Your task to perform on an android device: turn off location history Image 0: 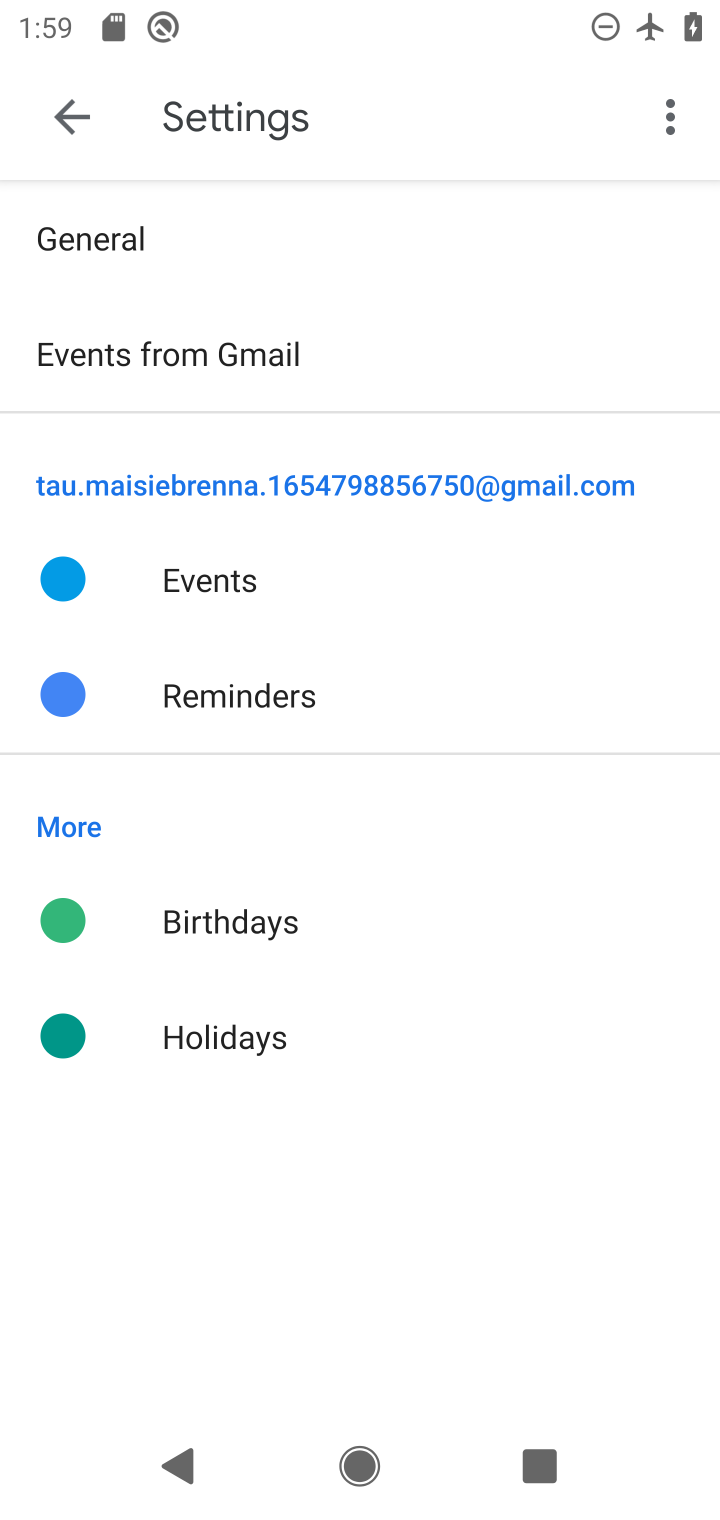
Step 0: click (68, 109)
Your task to perform on an android device: turn off location history Image 1: 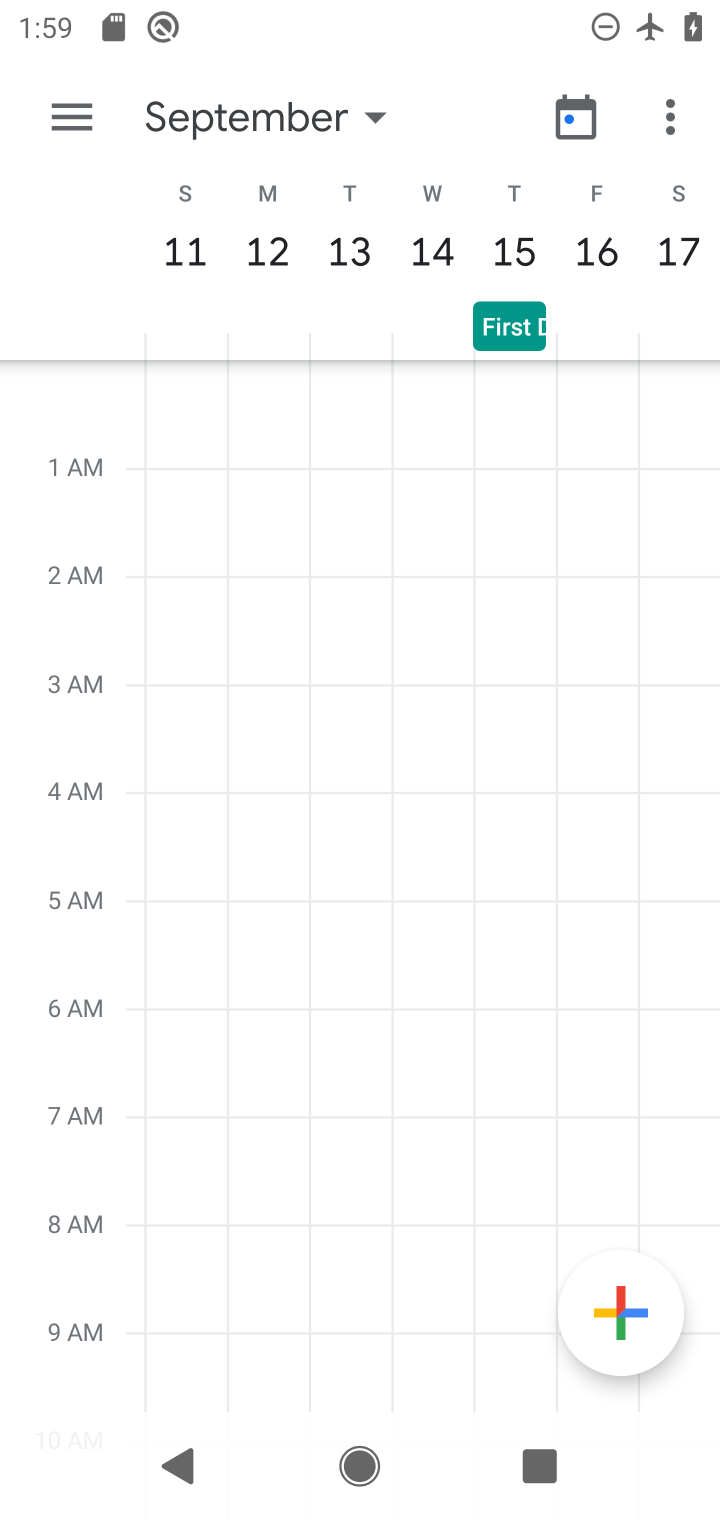
Step 1: press home button
Your task to perform on an android device: turn off location history Image 2: 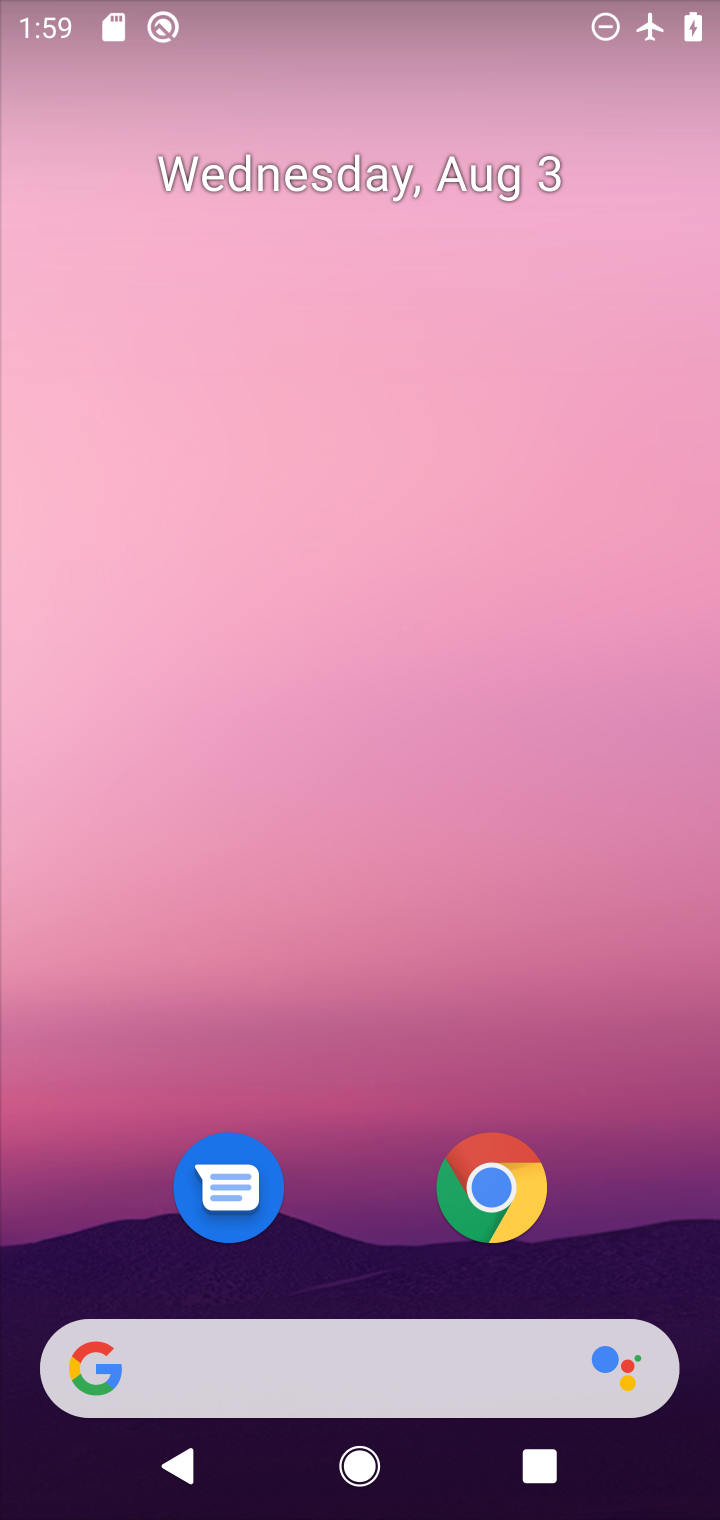
Step 2: drag from (403, 1084) to (450, 2)
Your task to perform on an android device: turn off location history Image 3: 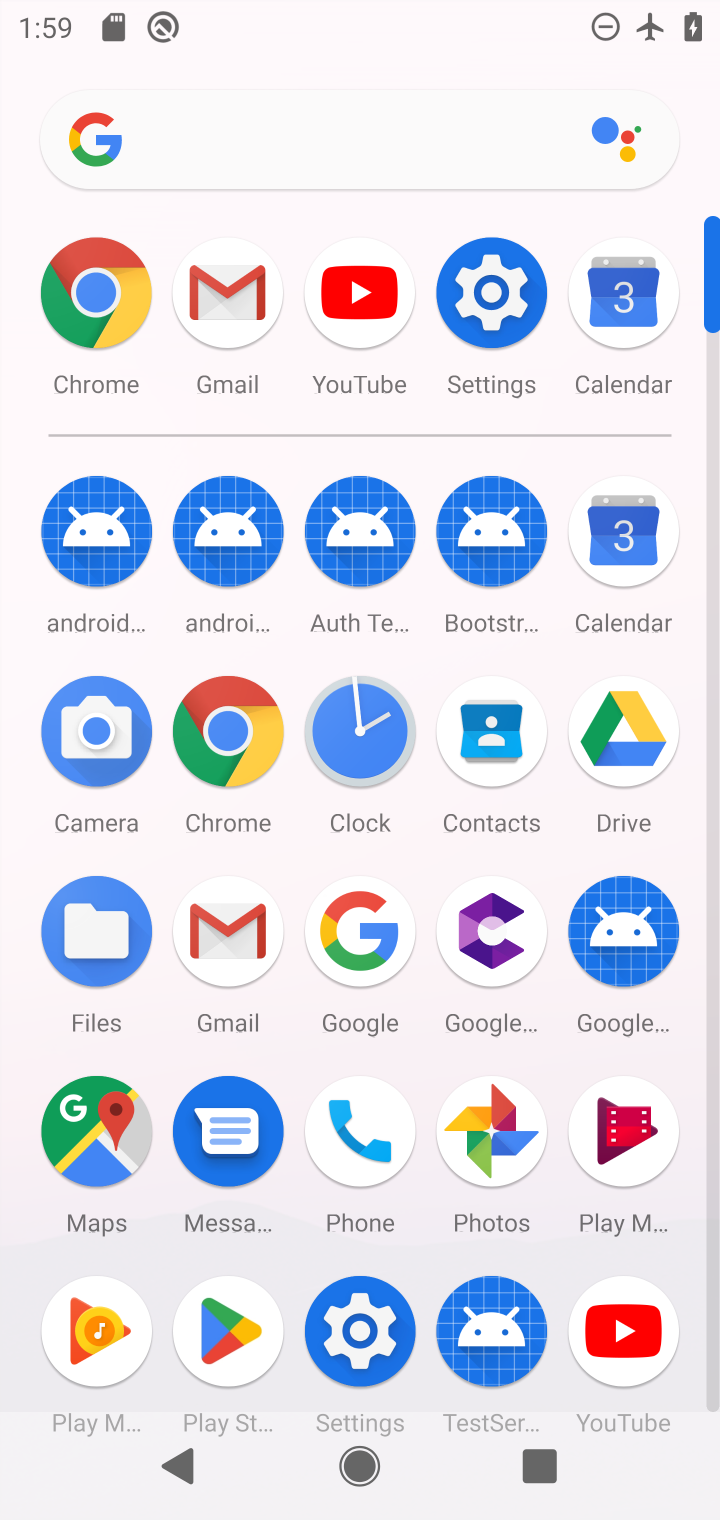
Step 3: click (490, 293)
Your task to perform on an android device: turn off location history Image 4: 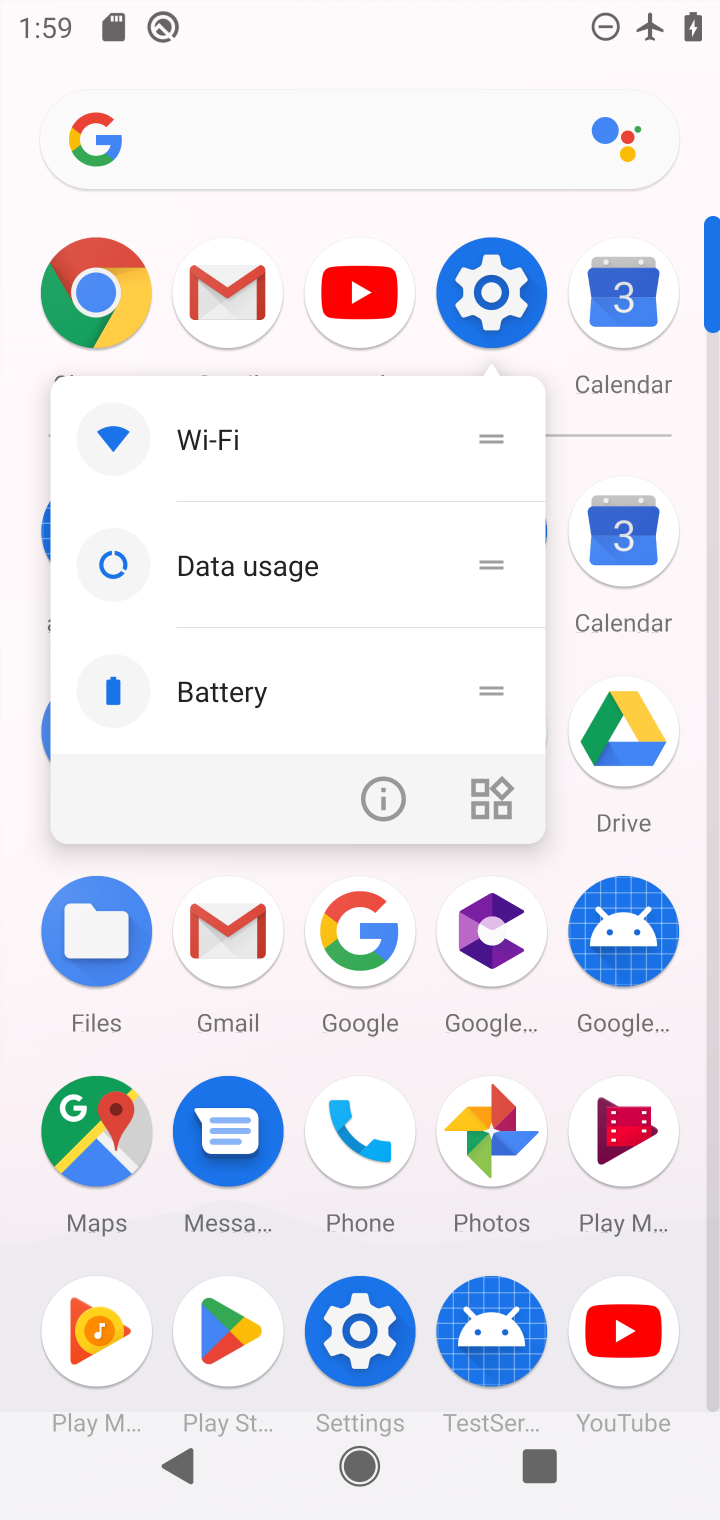
Step 4: click (490, 293)
Your task to perform on an android device: turn off location history Image 5: 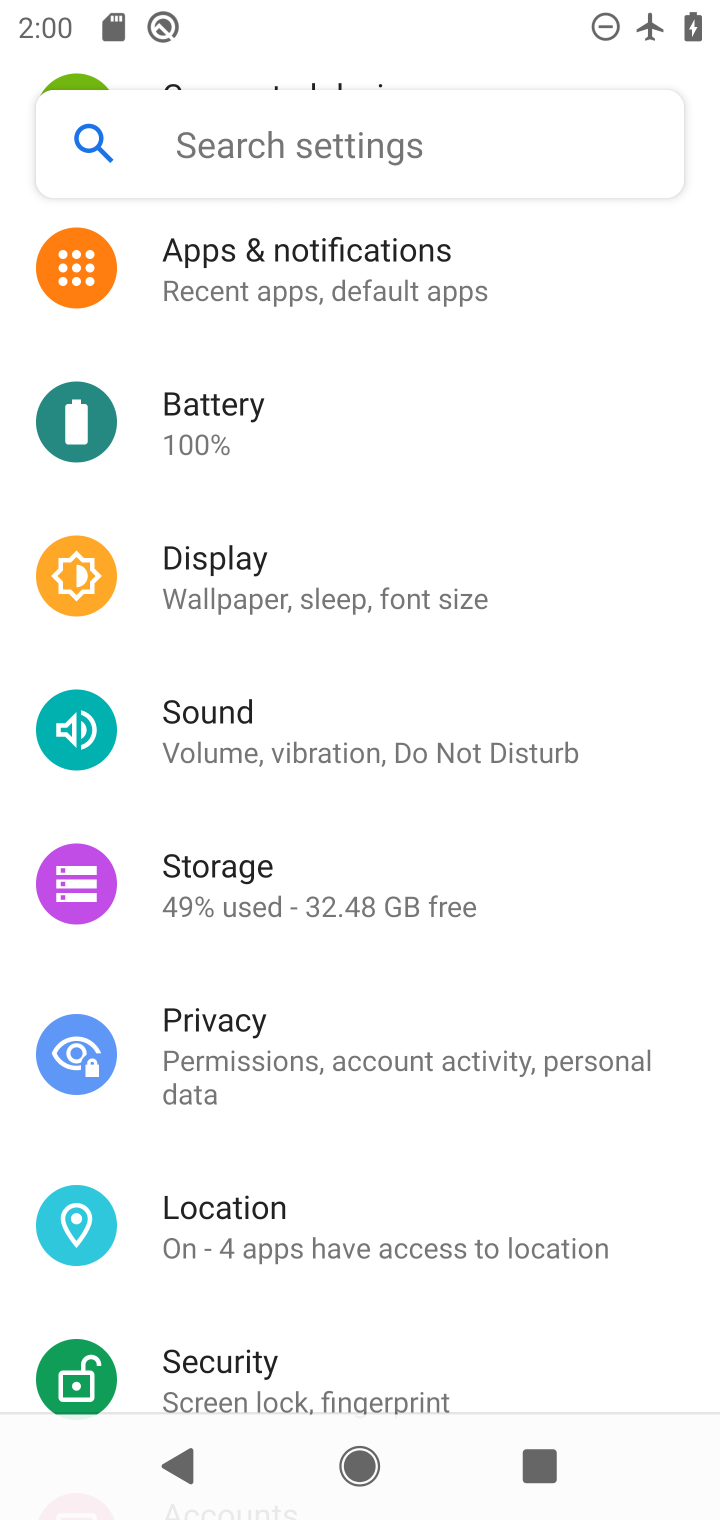
Step 5: click (327, 1206)
Your task to perform on an android device: turn off location history Image 6: 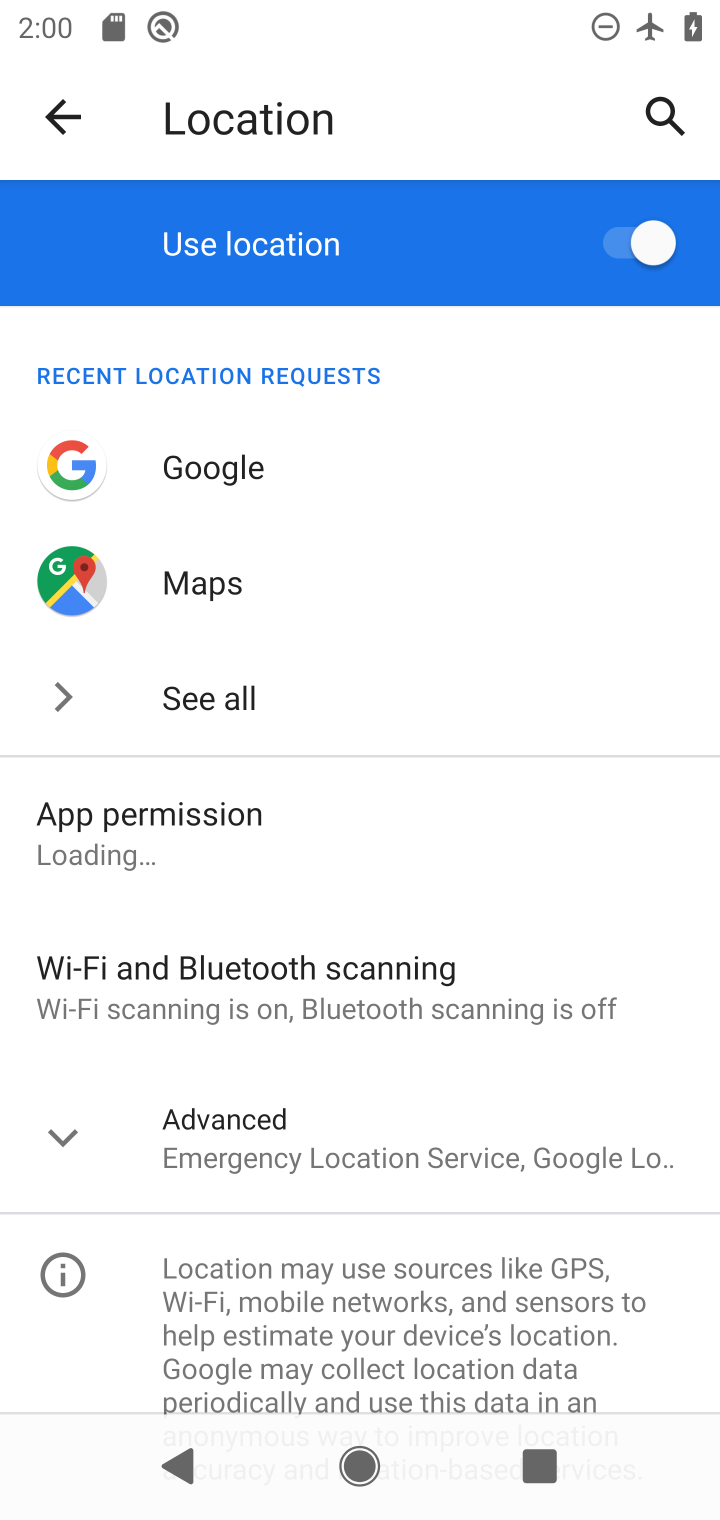
Step 6: click (64, 1130)
Your task to perform on an android device: turn off location history Image 7: 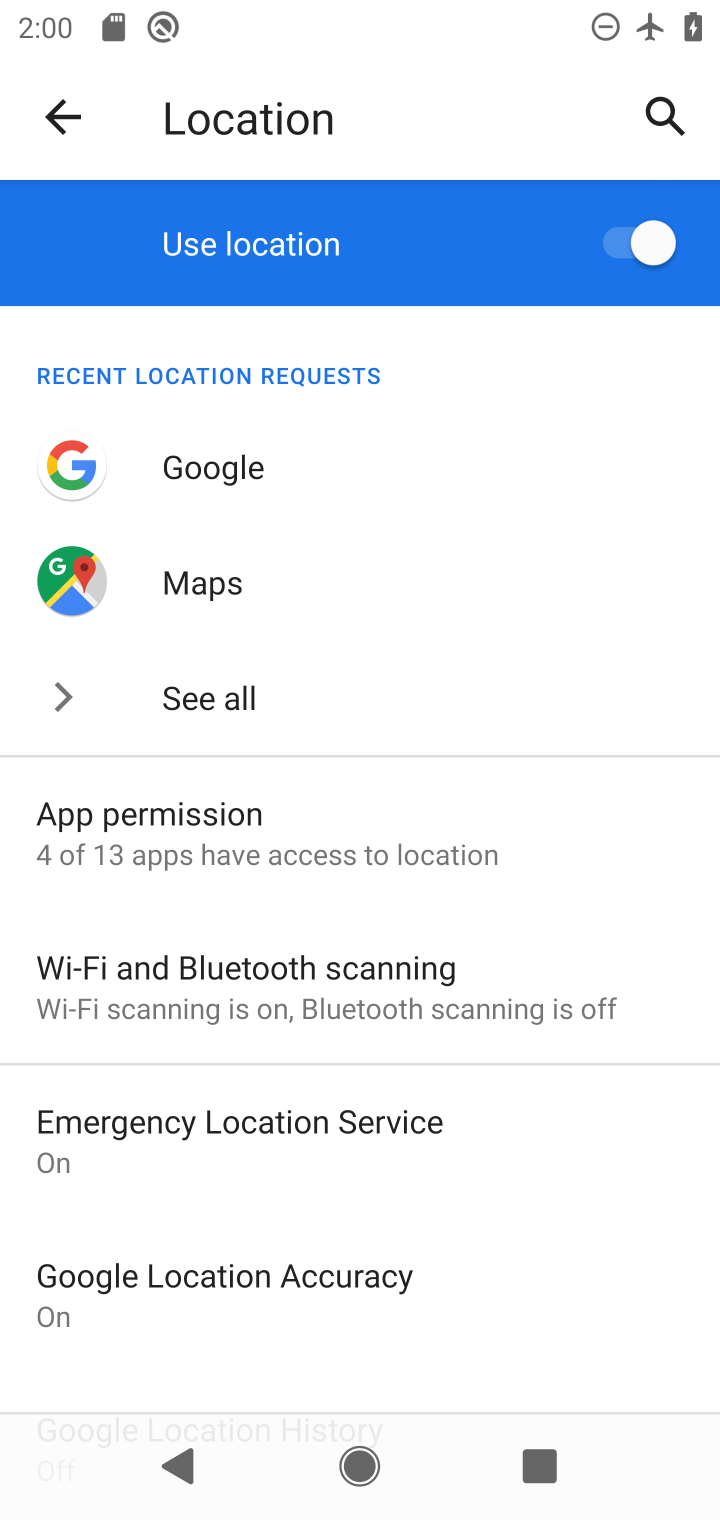
Step 7: drag from (366, 1228) to (450, 943)
Your task to perform on an android device: turn off location history Image 8: 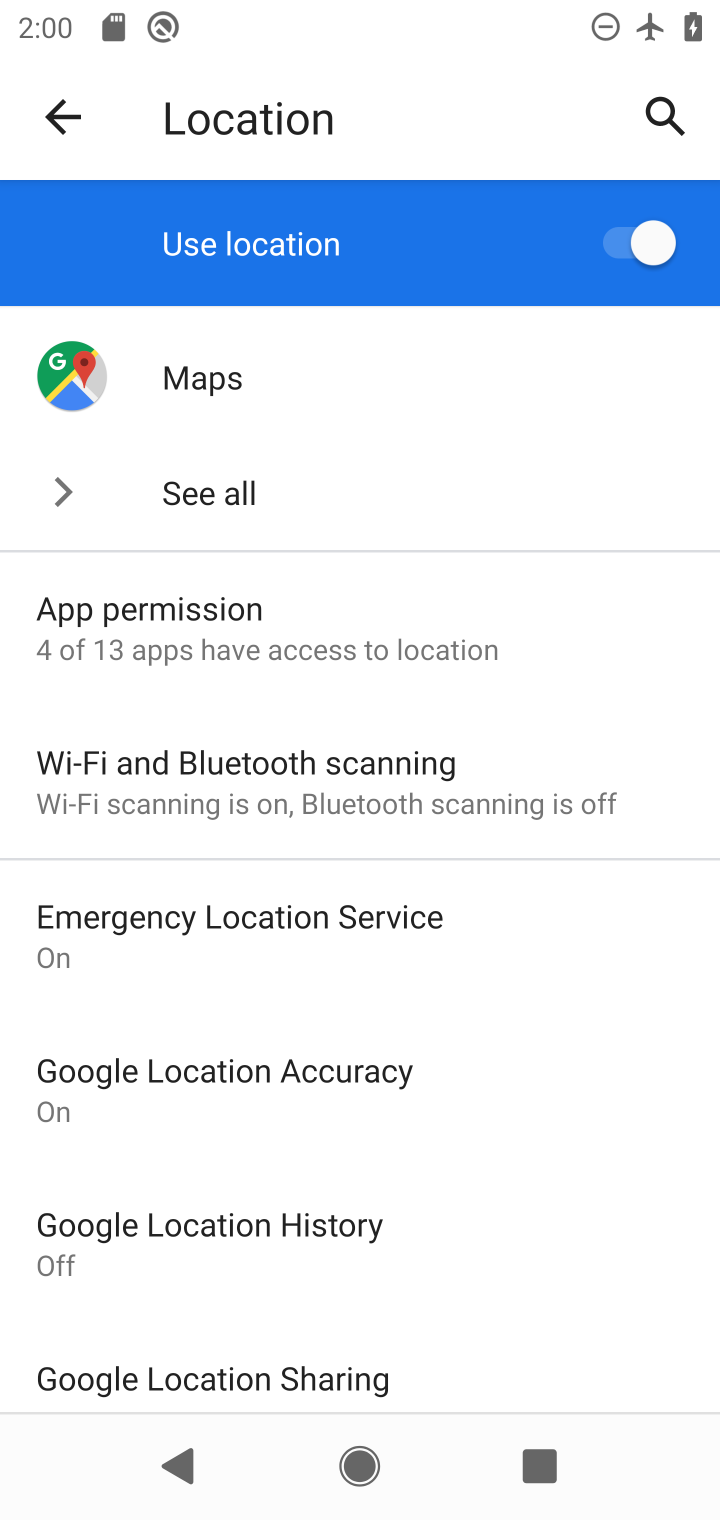
Step 8: click (305, 1239)
Your task to perform on an android device: turn off location history Image 9: 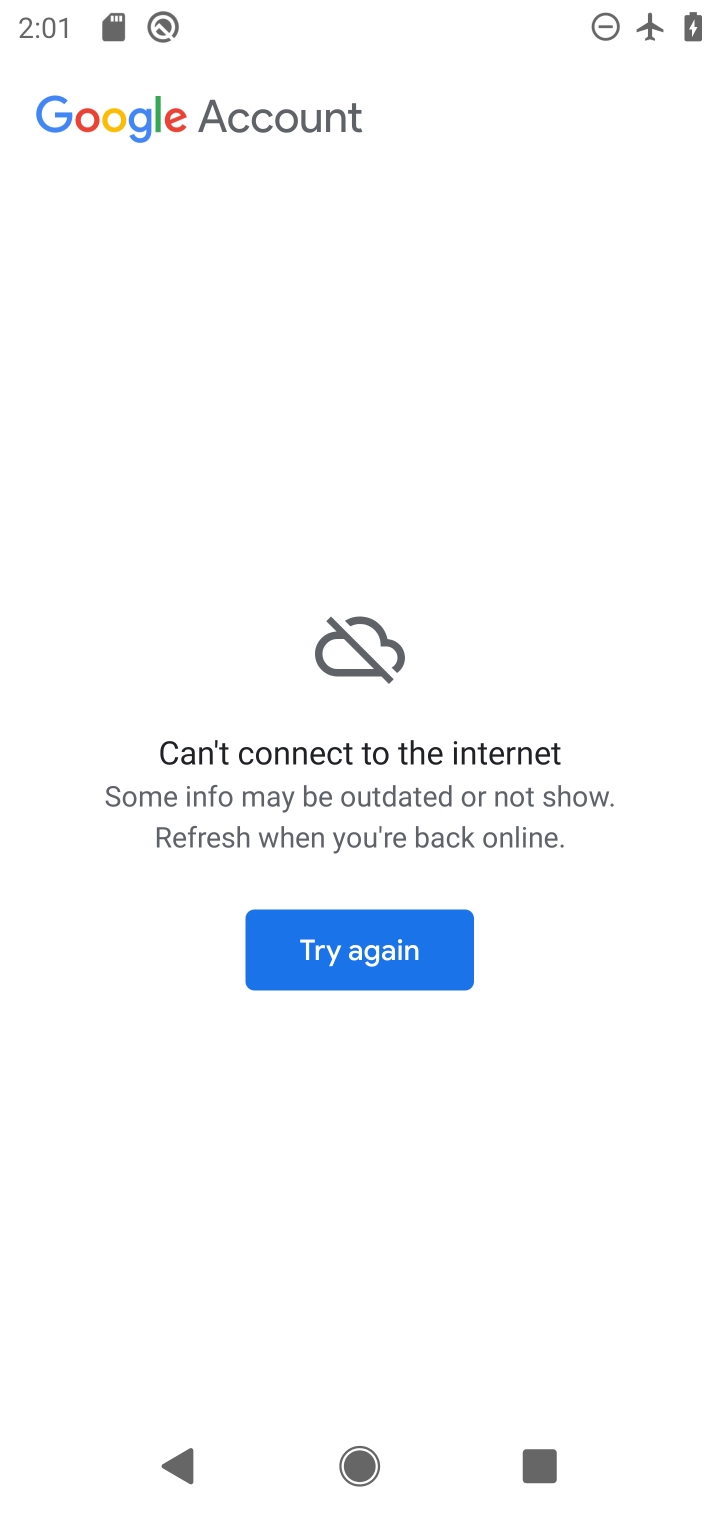
Step 9: click (397, 936)
Your task to perform on an android device: turn off location history Image 10: 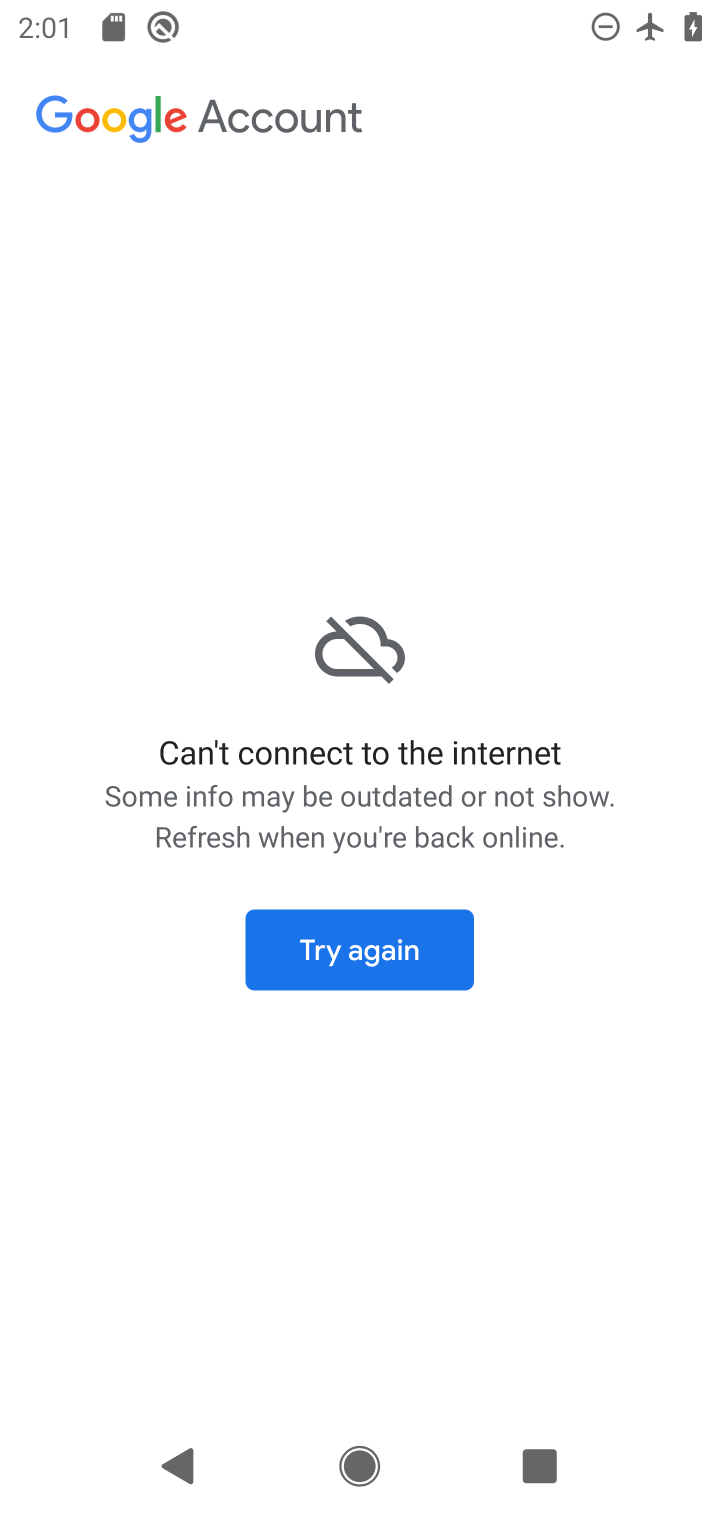
Step 10: task complete